Your task to perform on an android device: Go to eBay Image 0: 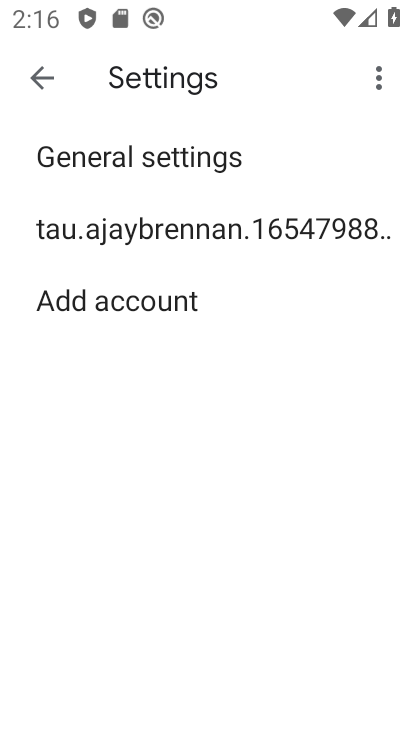
Step 0: press back button
Your task to perform on an android device: Go to eBay Image 1: 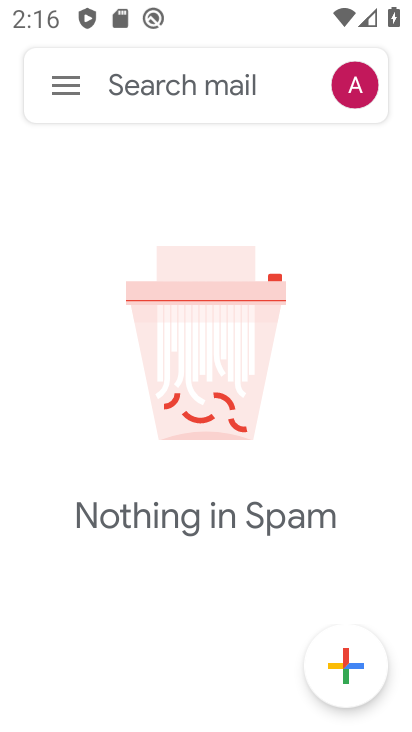
Step 1: press back button
Your task to perform on an android device: Go to eBay Image 2: 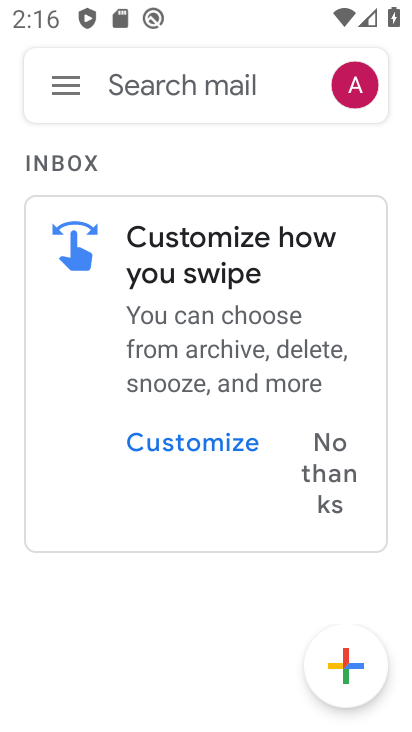
Step 2: press back button
Your task to perform on an android device: Go to eBay Image 3: 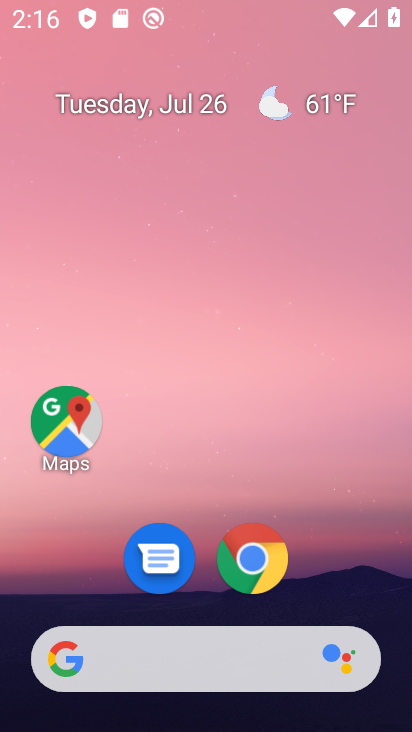
Step 3: press back button
Your task to perform on an android device: Go to eBay Image 4: 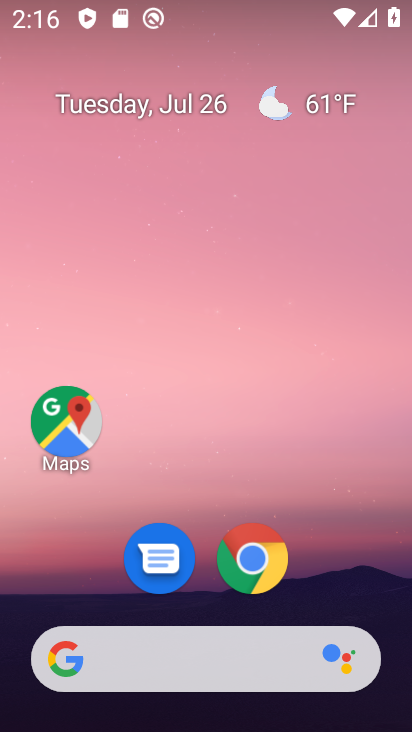
Step 4: click (250, 543)
Your task to perform on an android device: Go to eBay Image 5: 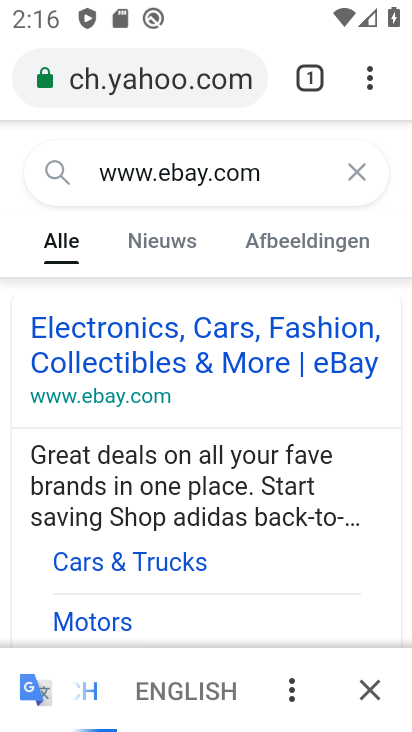
Step 5: task complete